Your task to perform on an android device: Show me the alarms in the clock app Image 0: 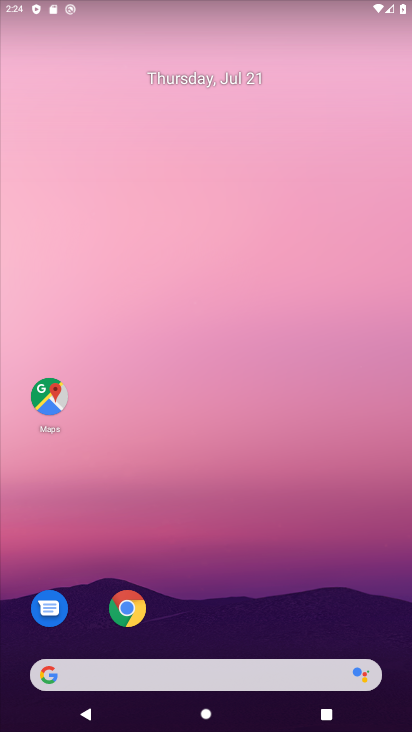
Step 0: drag from (166, 673) to (219, 6)
Your task to perform on an android device: Show me the alarms in the clock app Image 1: 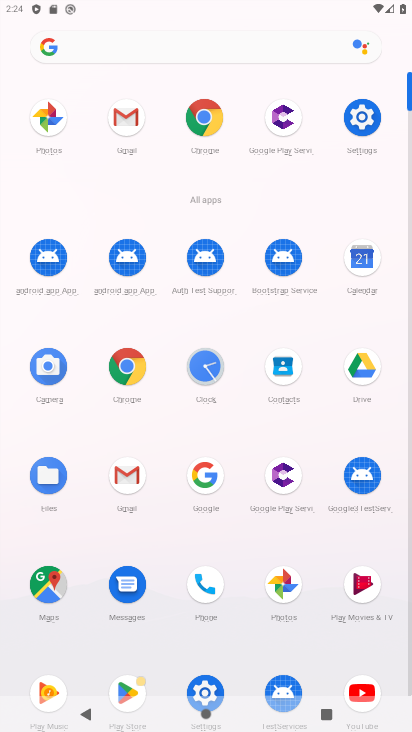
Step 1: click (211, 365)
Your task to perform on an android device: Show me the alarms in the clock app Image 2: 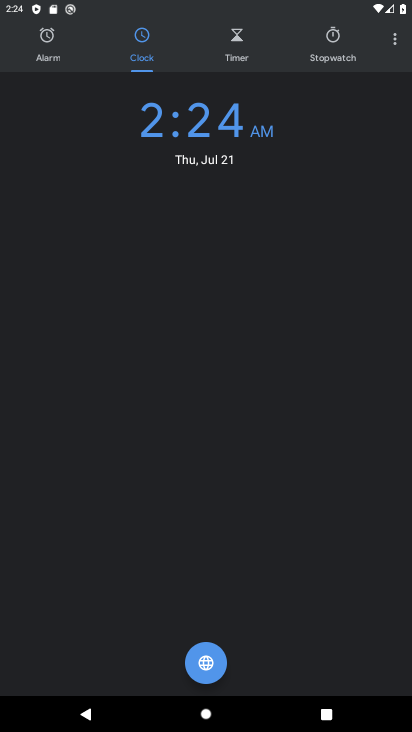
Step 2: click (35, 57)
Your task to perform on an android device: Show me the alarms in the clock app Image 3: 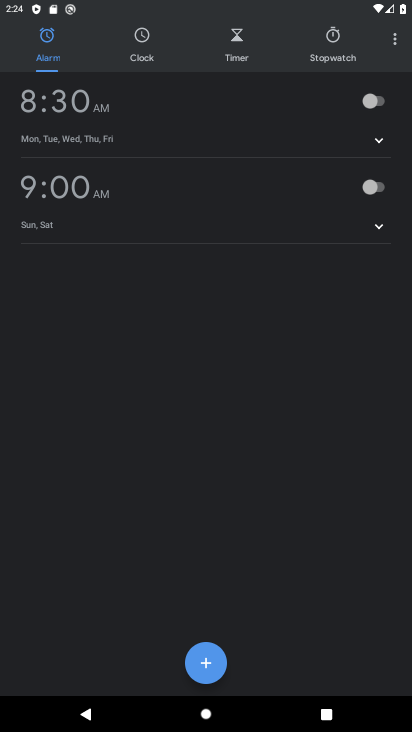
Step 3: task complete